Your task to perform on an android device: Show me the alarms in the clock app Image 0: 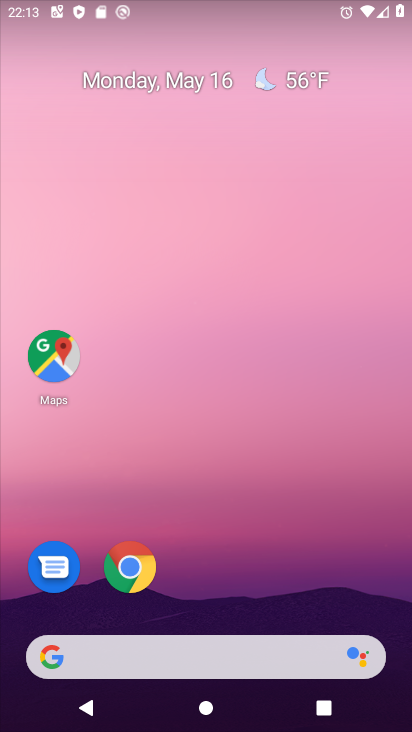
Step 0: drag from (273, 597) to (259, 82)
Your task to perform on an android device: Show me the alarms in the clock app Image 1: 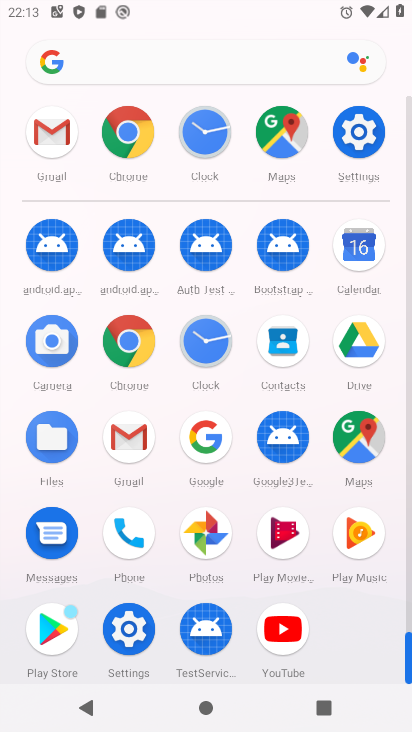
Step 1: click (198, 330)
Your task to perform on an android device: Show me the alarms in the clock app Image 2: 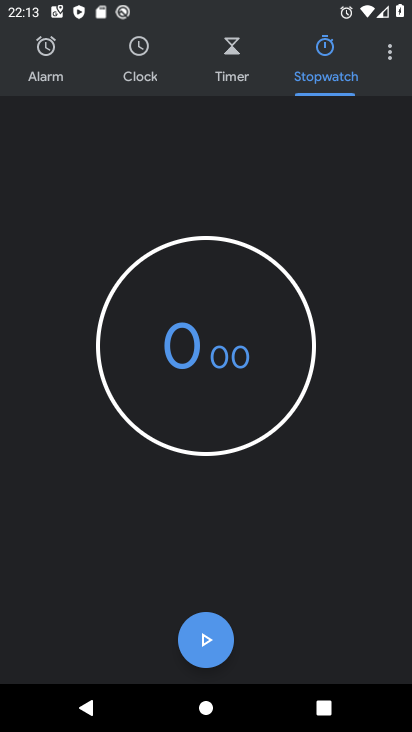
Step 2: click (58, 52)
Your task to perform on an android device: Show me the alarms in the clock app Image 3: 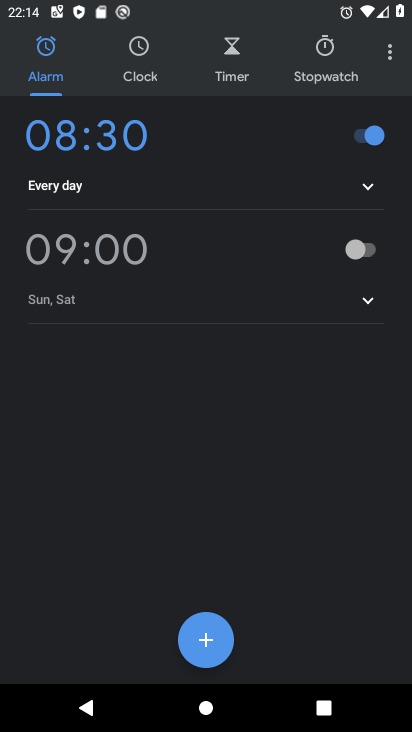
Step 3: task complete